Your task to perform on an android device: check the backup settings in the google photos Image 0: 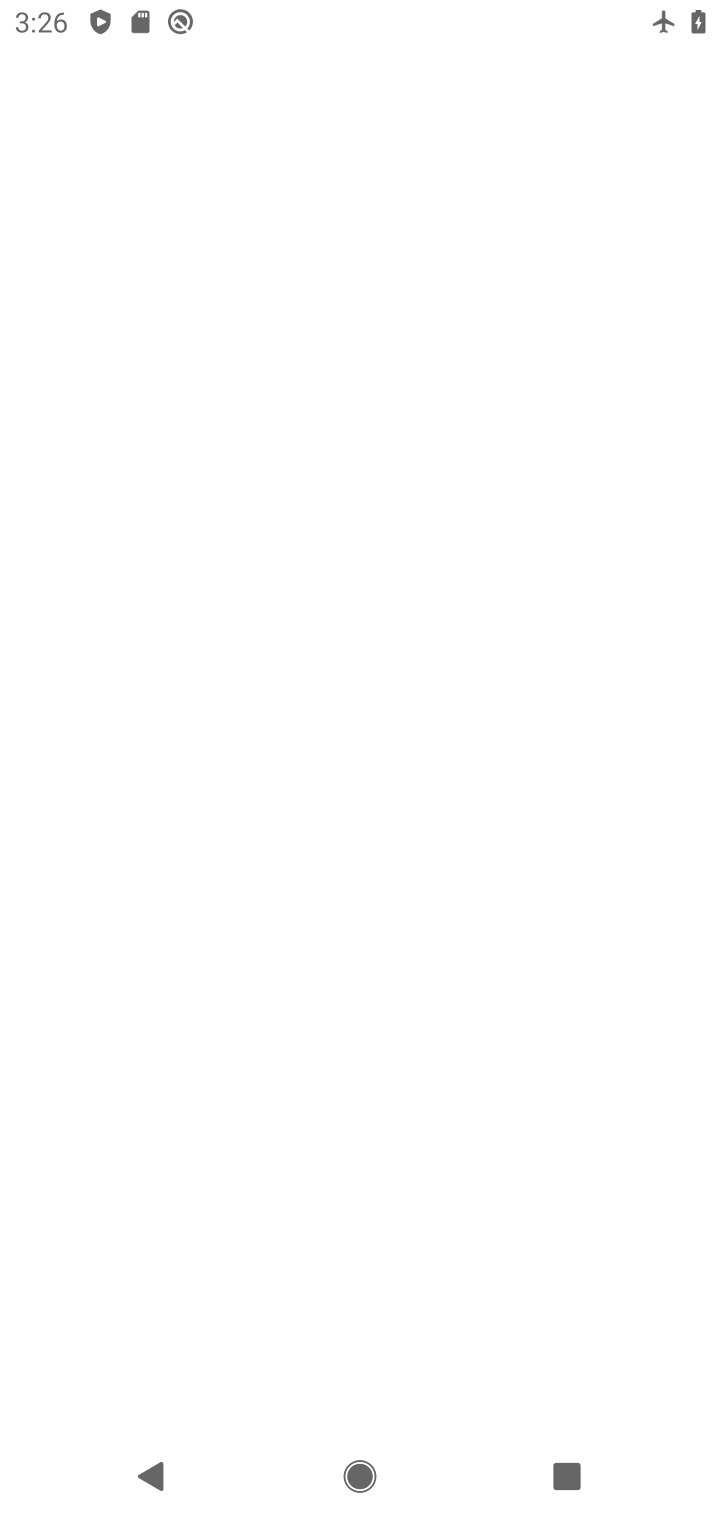
Step 0: press home button
Your task to perform on an android device: check the backup settings in the google photos Image 1: 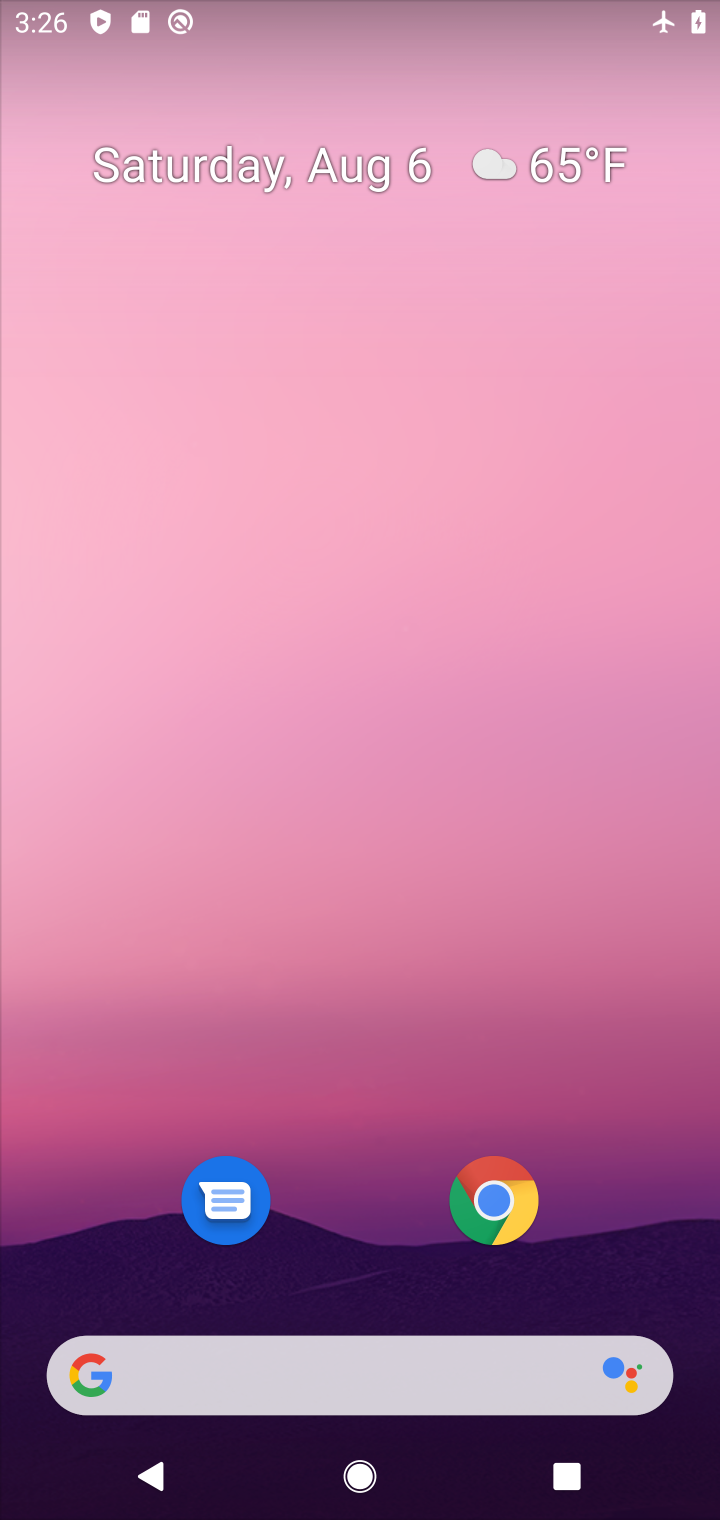
Step 1: drag from (466, 1222) to (524, 317)
Your task to perform on an android device: check the backup settings in the google photos Image 2: 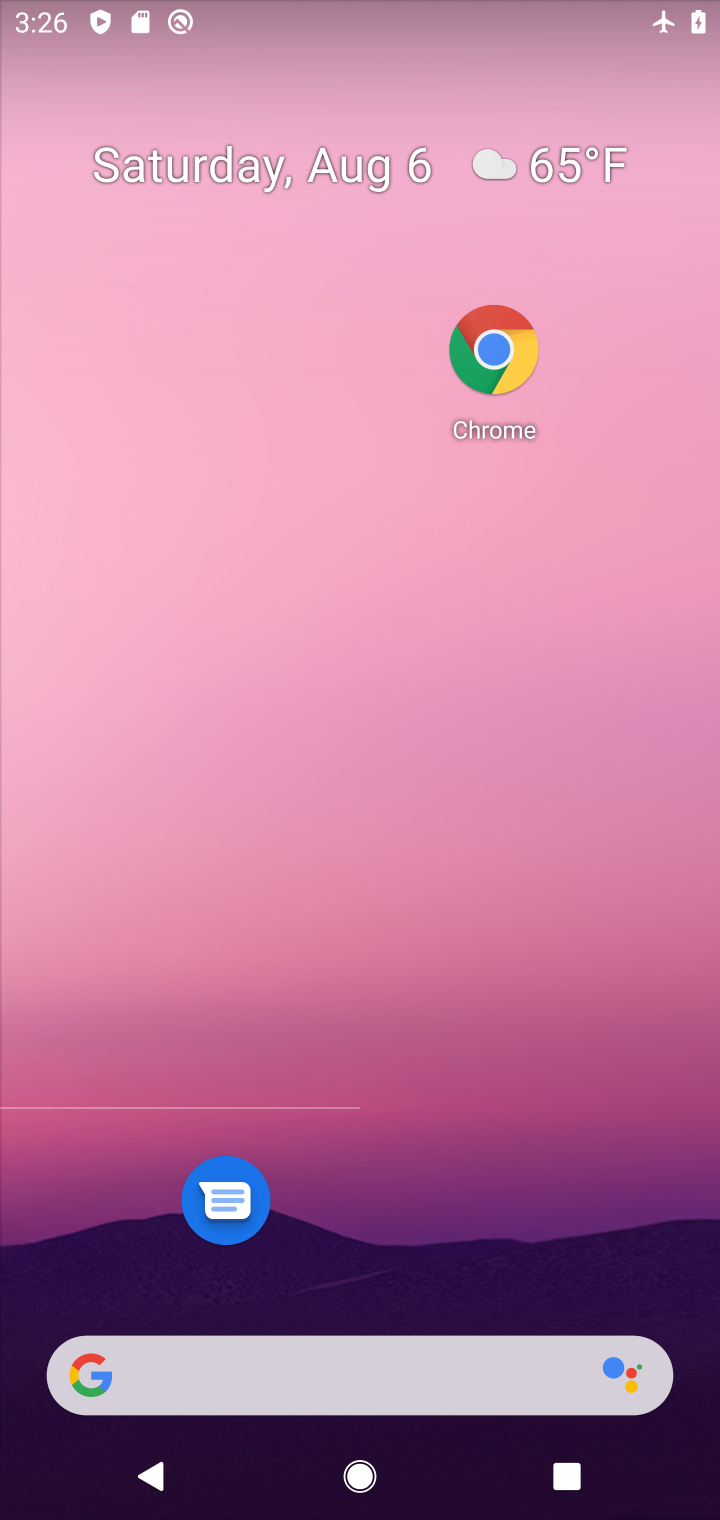
Step 2: drag from (330, 1324) to (324, 193)
Your task to perform on an android device: check the backup settings in the google photos Image 3: 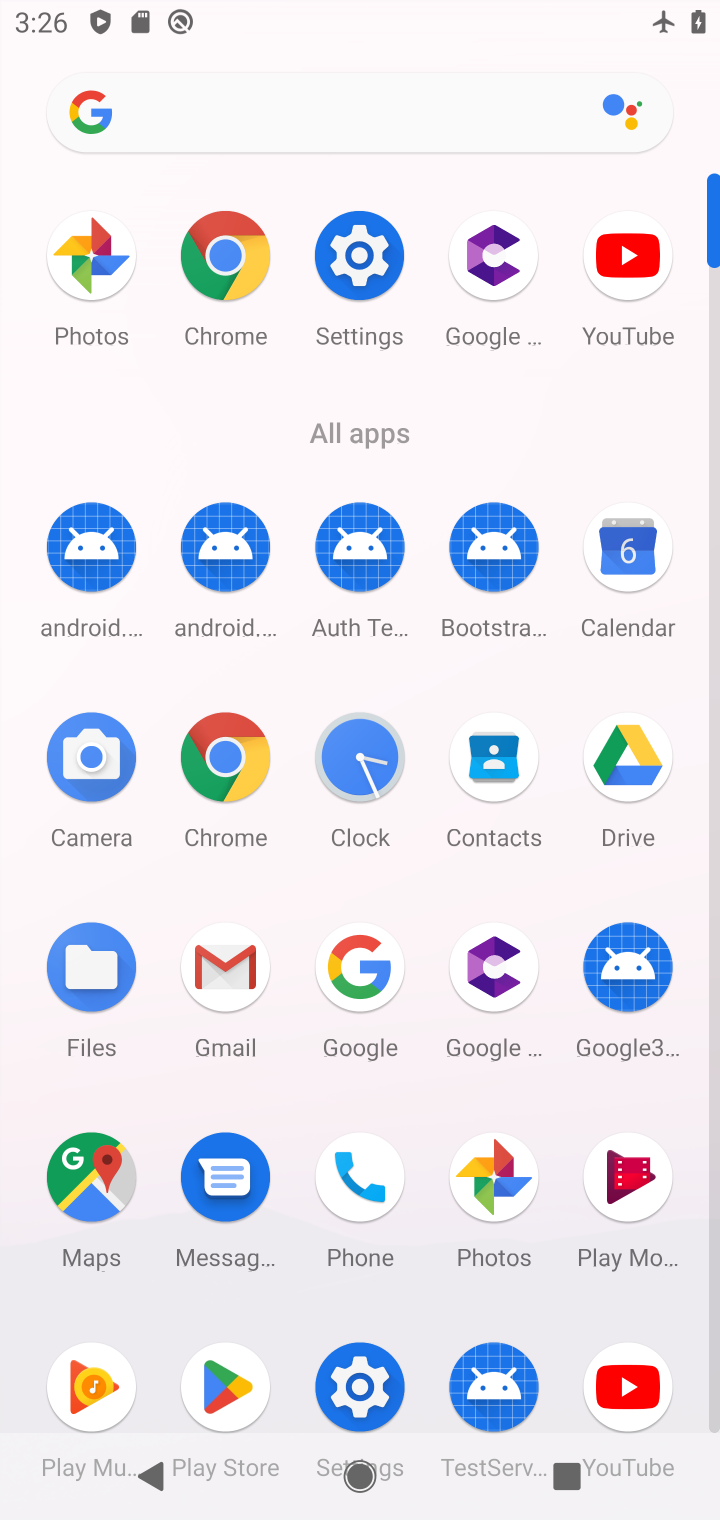
Step 3: click (484, 1167)
Your task to perform on an android device: check the backup settings in the google photos Image 4: 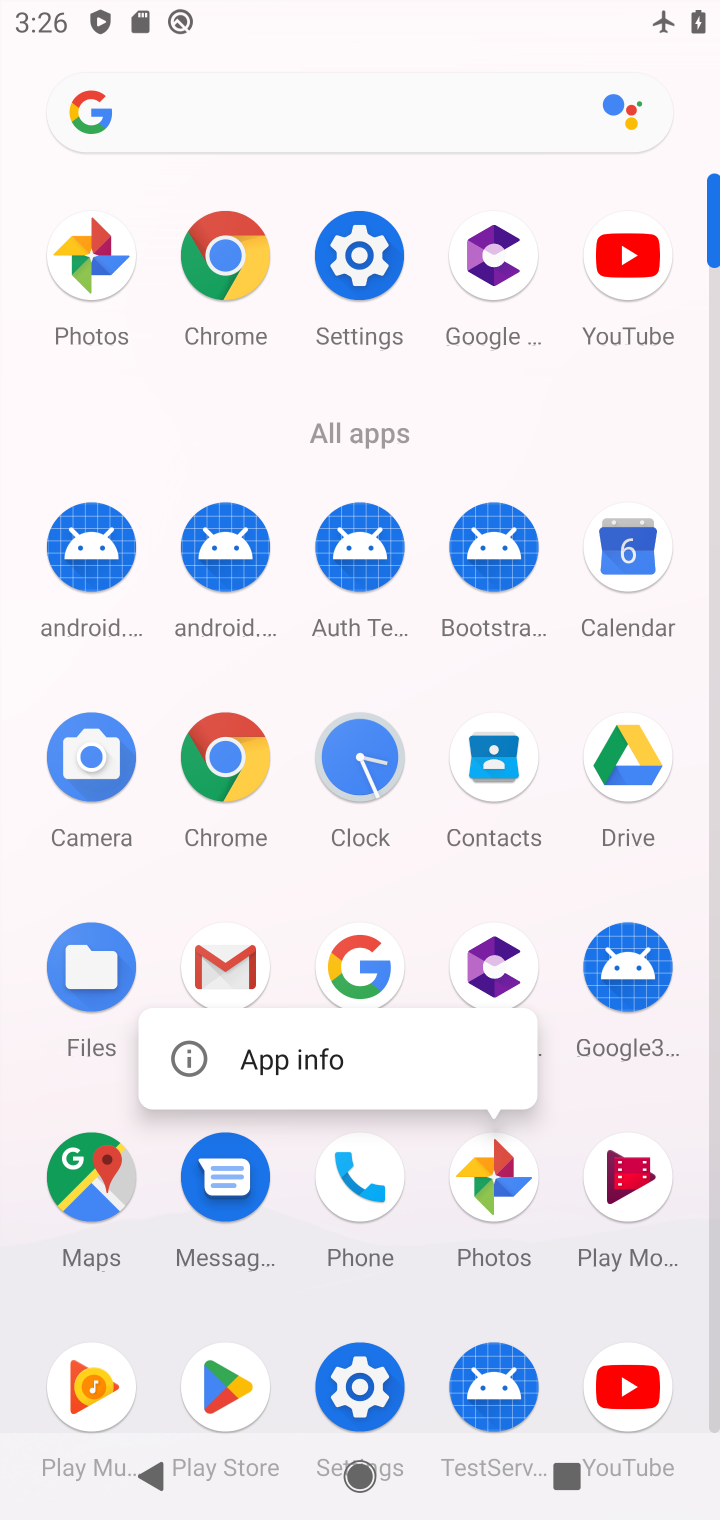
Step 4: click (484, 1167)
Your task to perform on an android device: check the backup settings in the google photos Image 5: 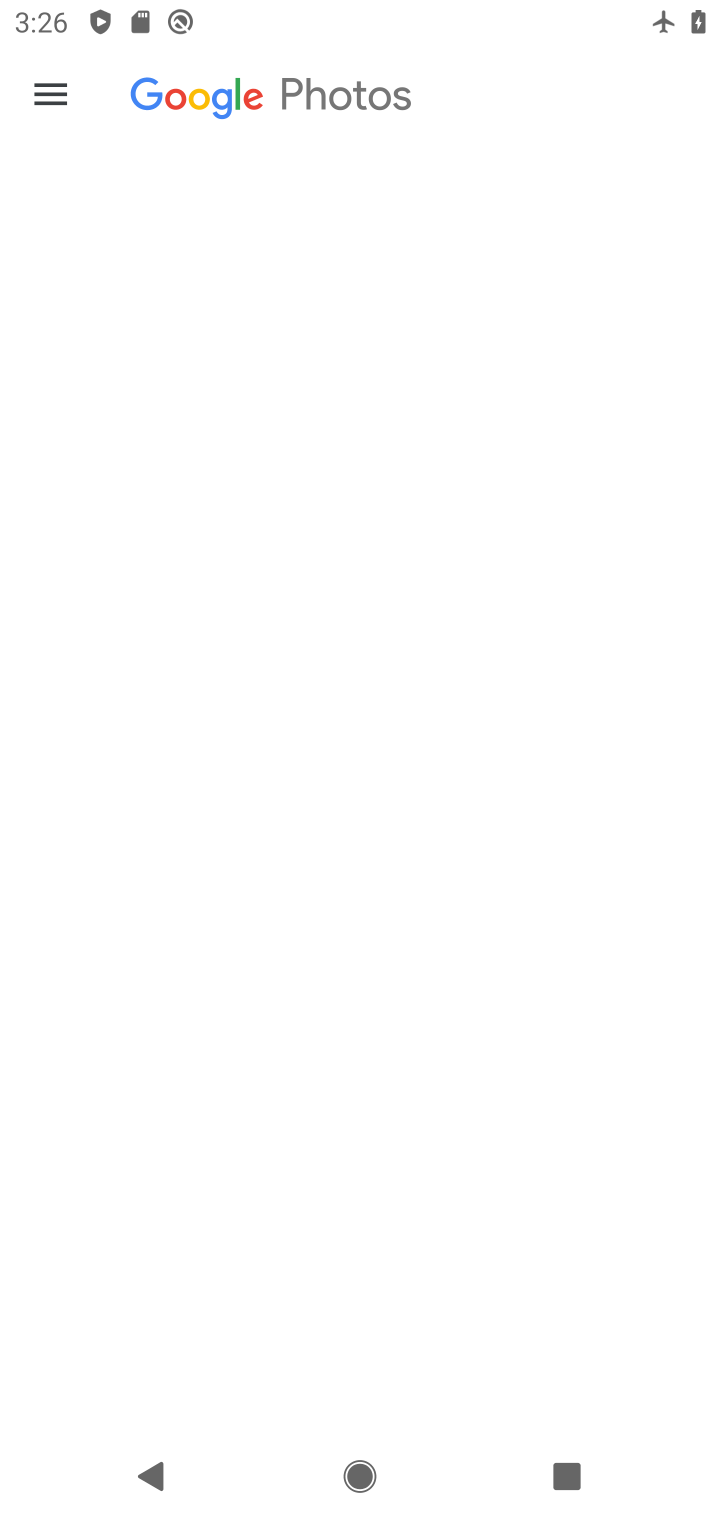
Step 5: click (56, 112)
Your task to perform on an android device: check the backup settings in the google photos Image 6: 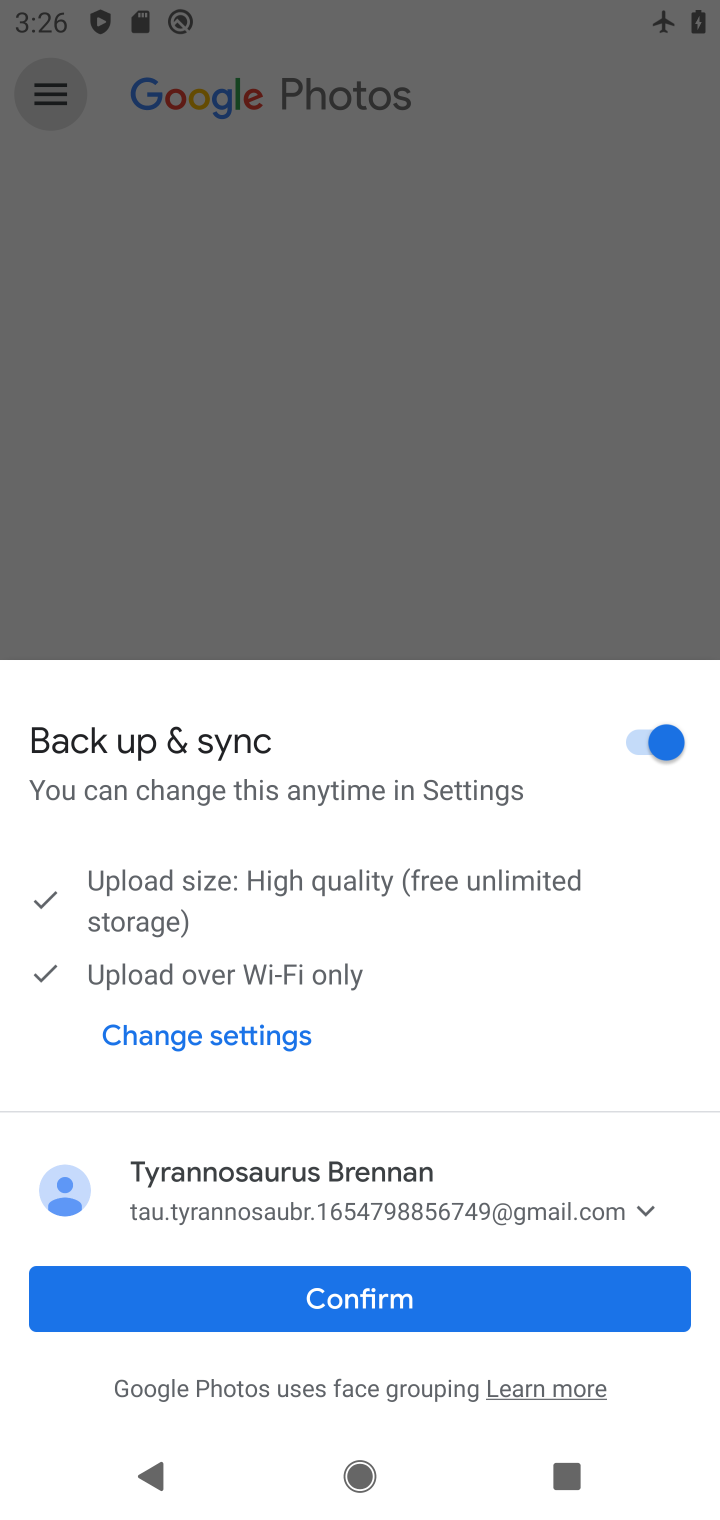
Step 6: click (375, 1287)
Your task to perform on an android device: check the backup settings in the google photos Image 7: 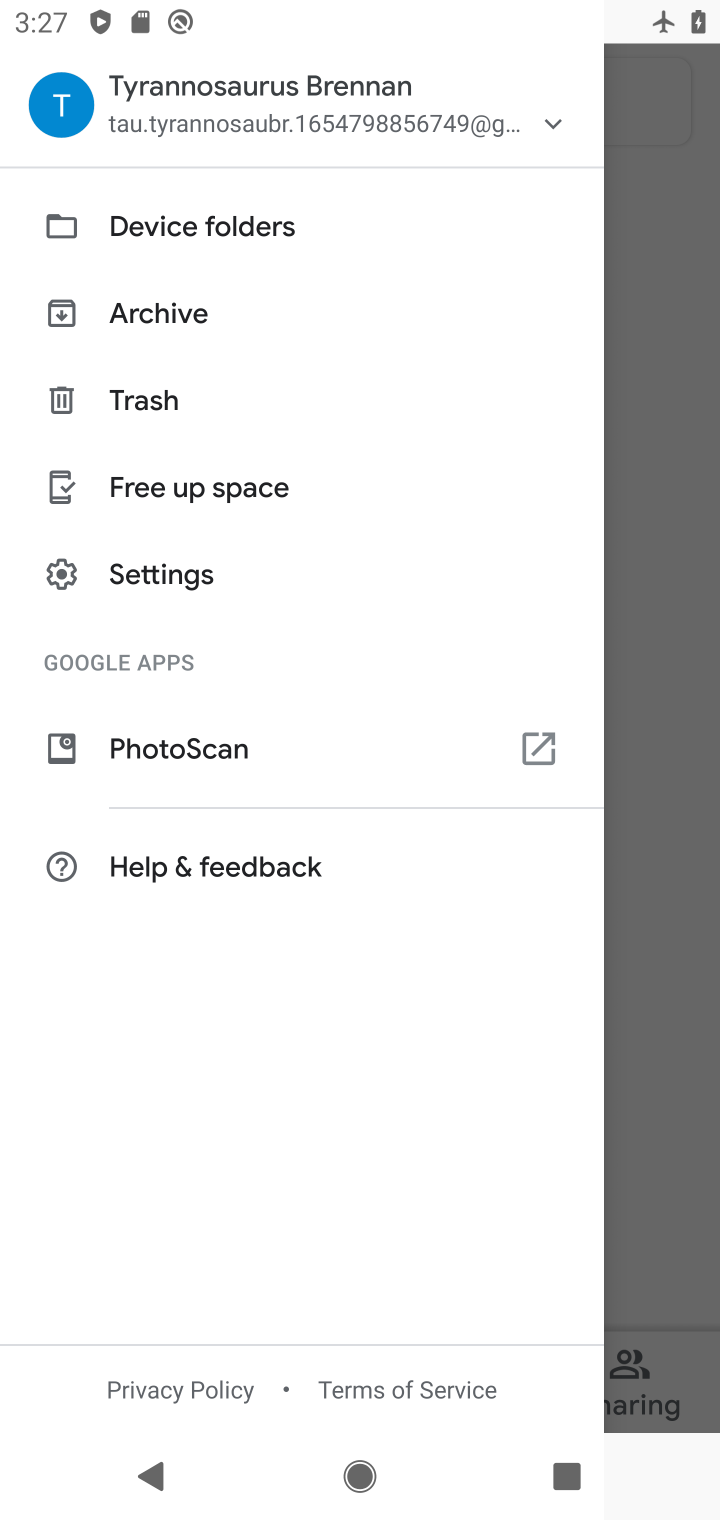
Step 7: click (213, 585)
Your task to perform on an android device: check the backup settings in the google photos Image 8: 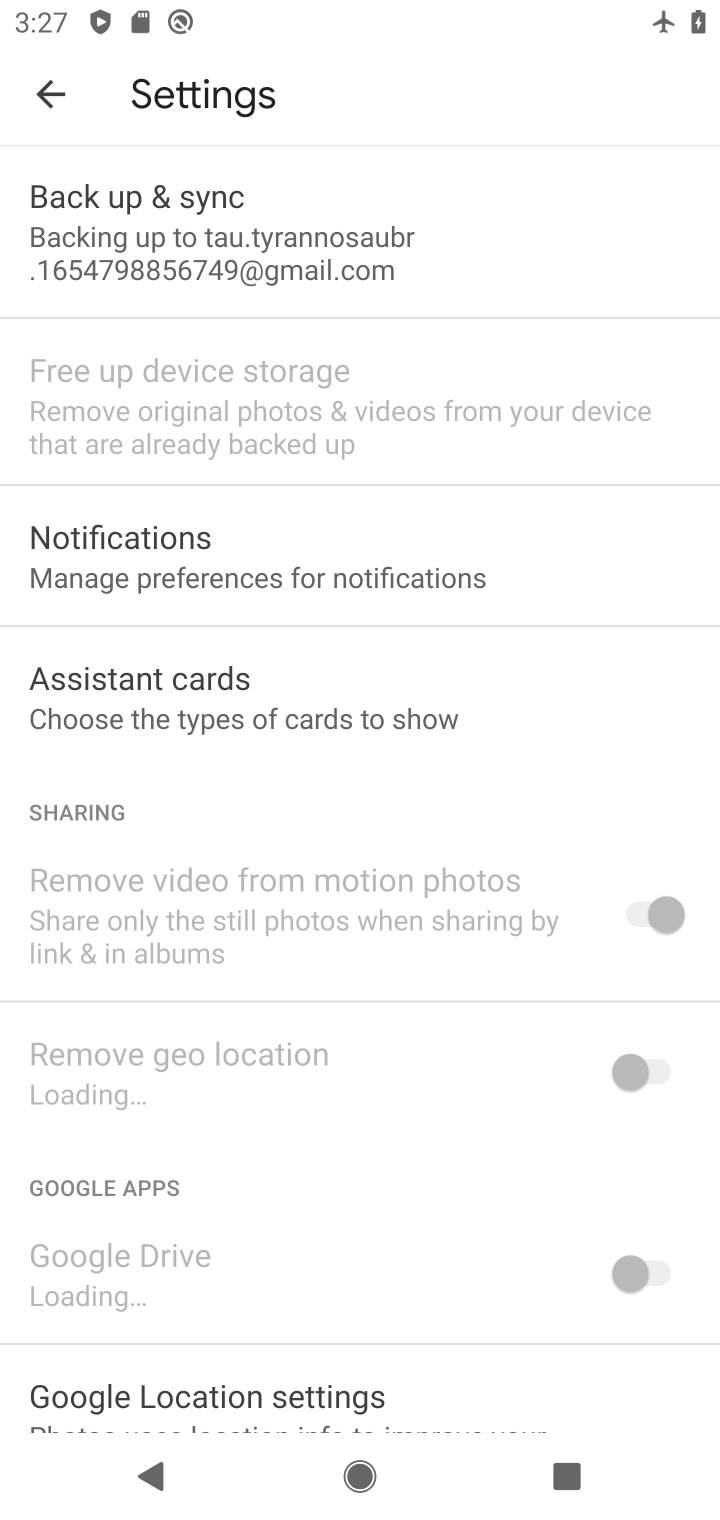
Step 8: press home button
Your task to perform on an android device: check the backup settings in the google photos Image 9: 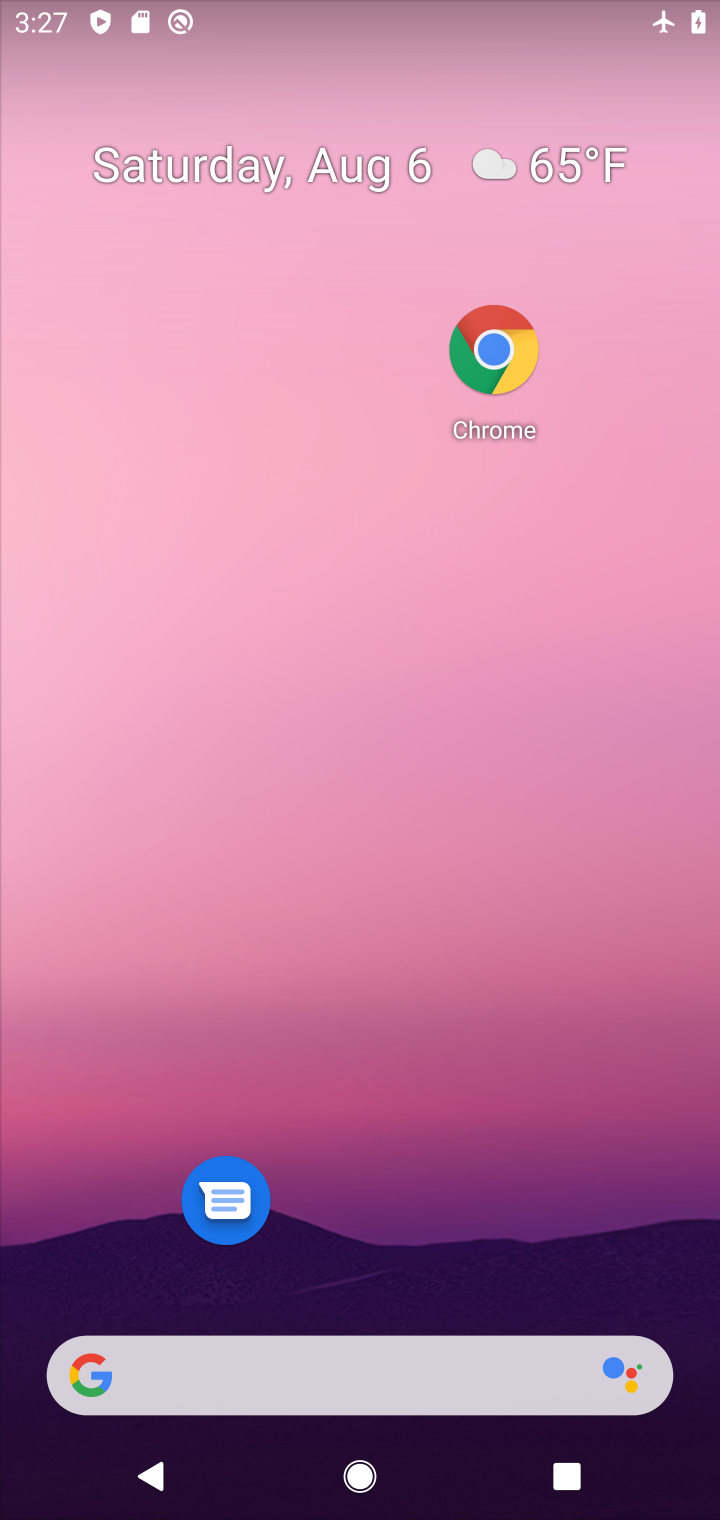
Step 9: drag from (360, 941) to (362, 414)
Your task to perform on an android device: check the backup settings in the google photos Image 10: 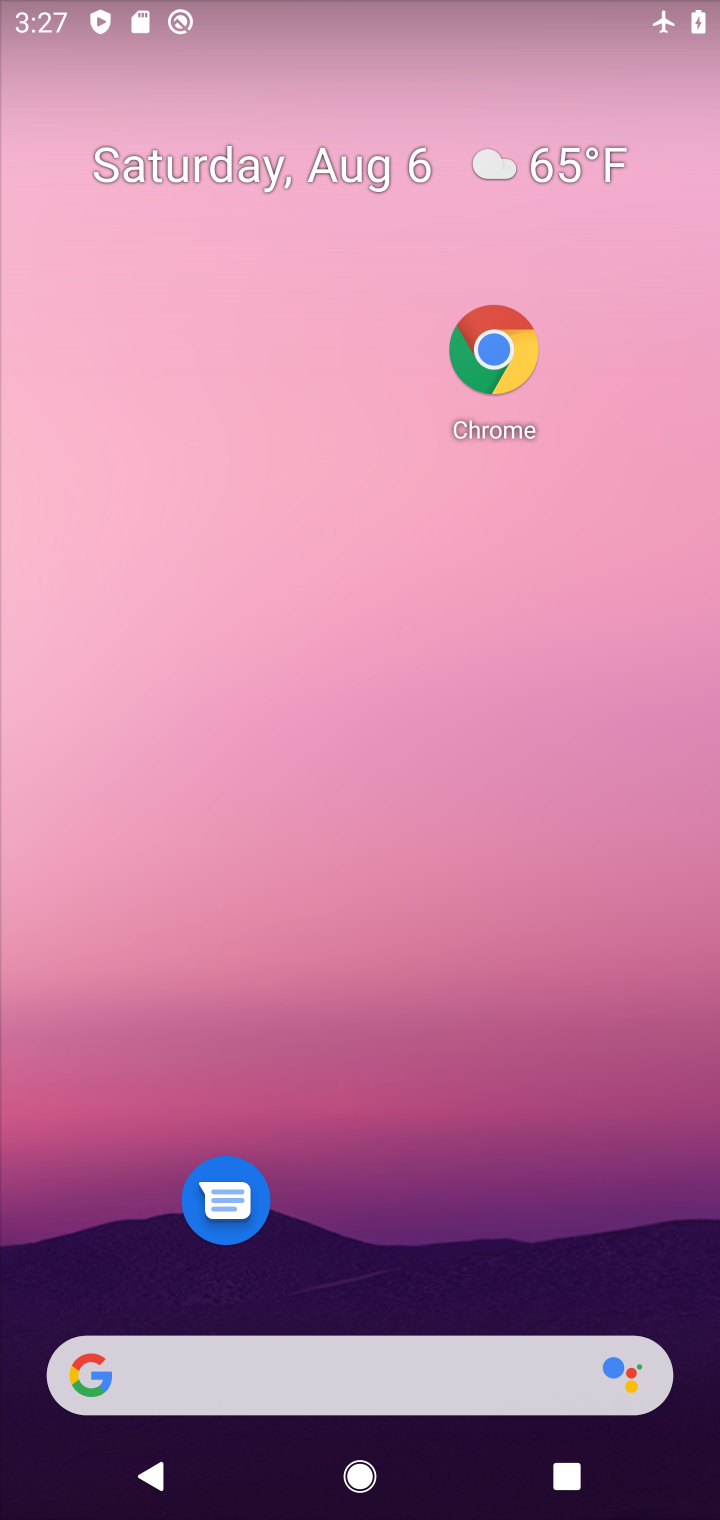
Step 10: drag from (332, 1340) to (279, 322)
Your task to perform on an android device: check the backup settings in the google photos Image 11: 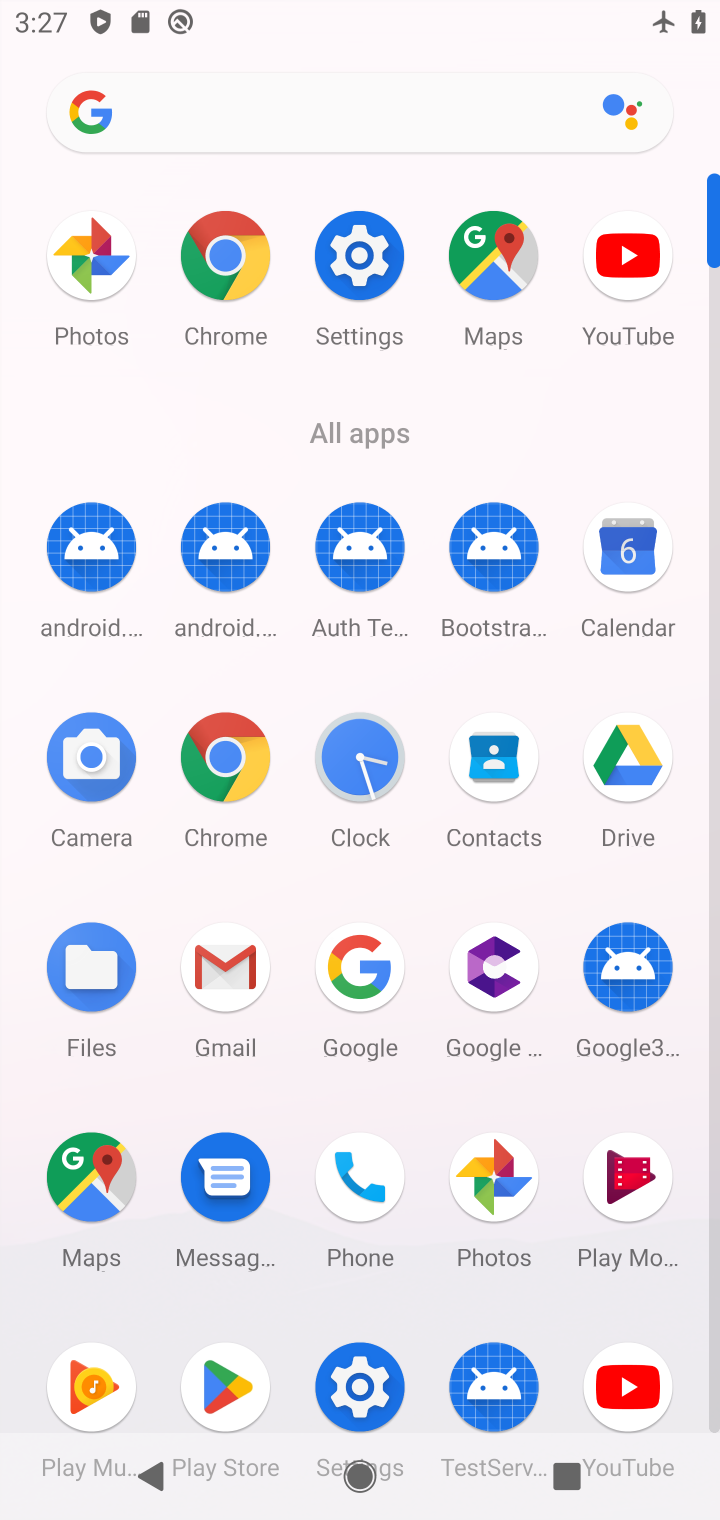
Step 11: click (490, 1168)
Your task to perform on an android device: check the backup settings in the google photos Image 12: 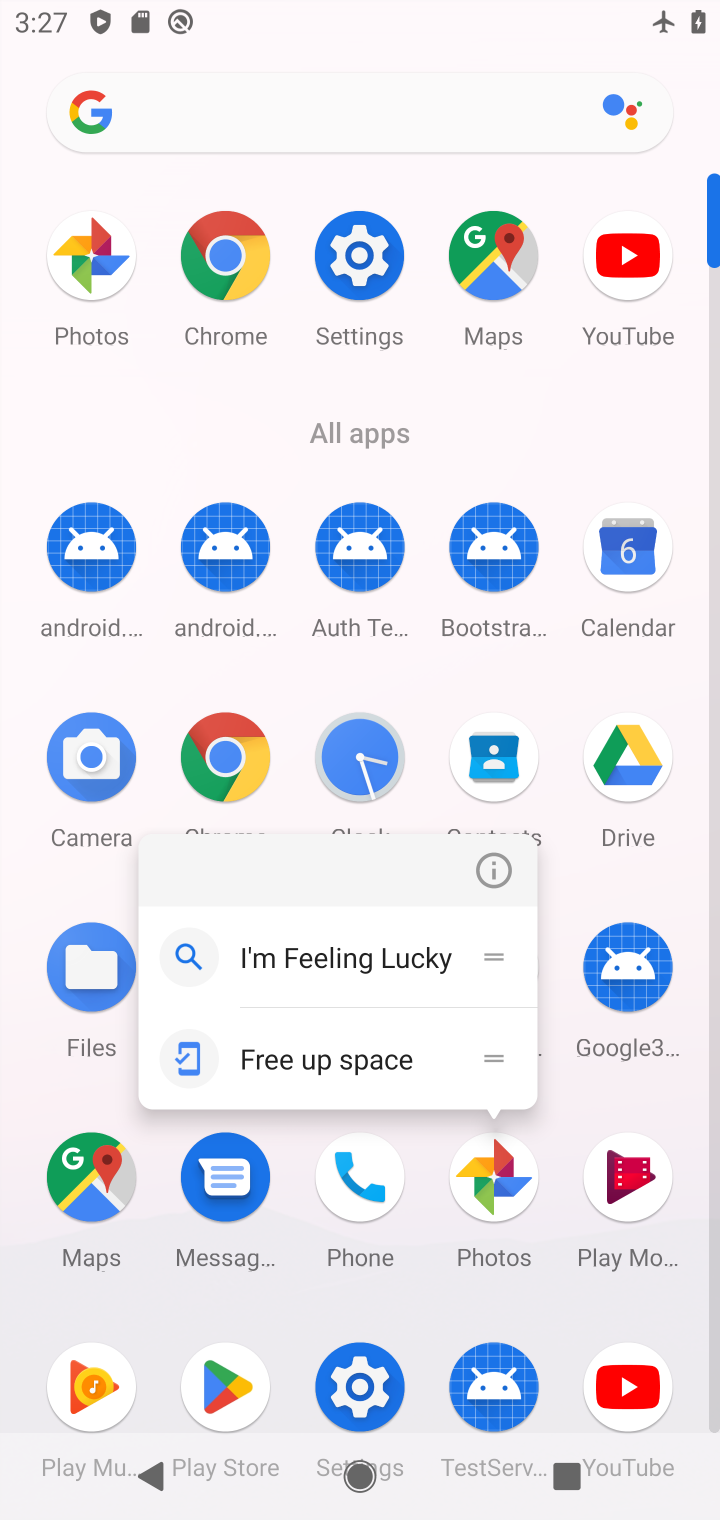
Step 12: click (490, 1168)
Your task to perform on an android device: check the backup settings in the google photos Image 13: 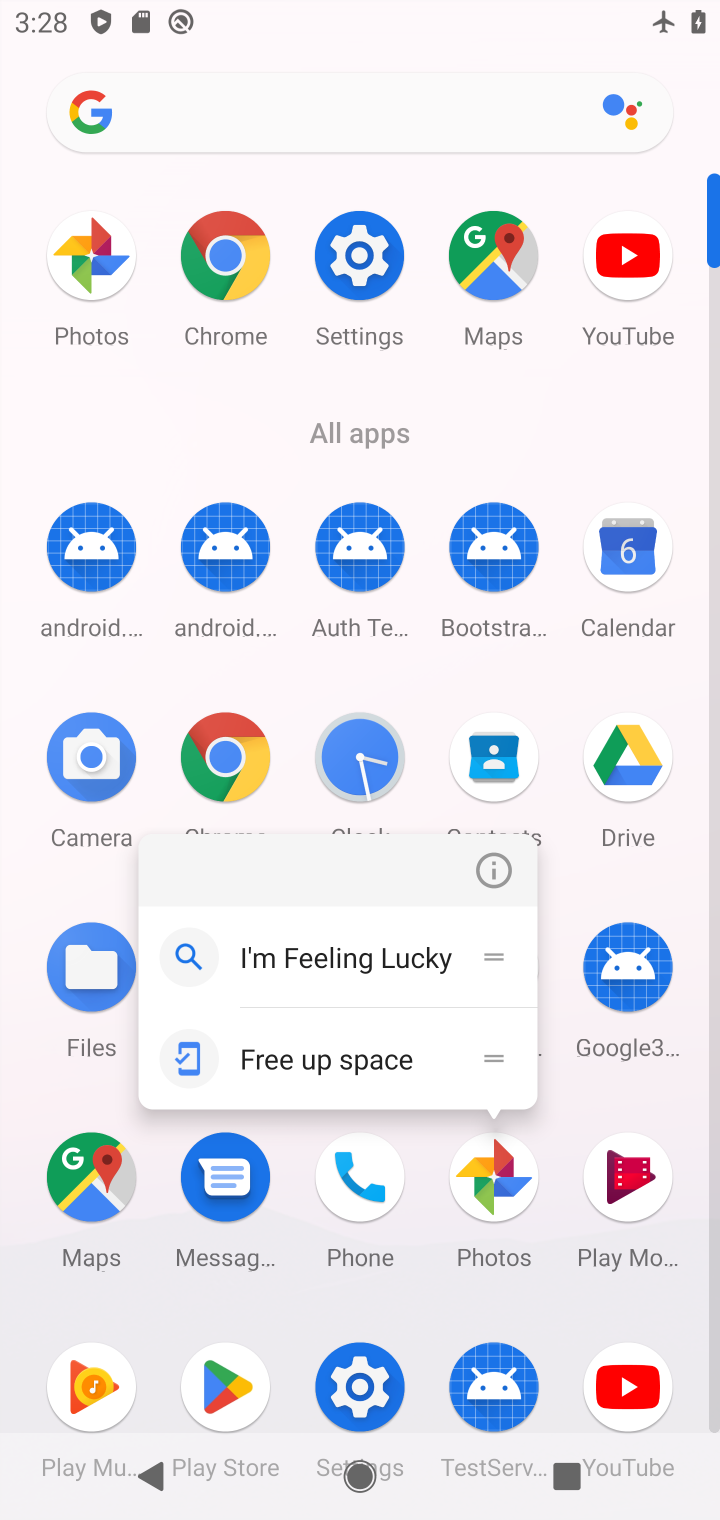
Step 13: click (488, 1166)
Your task to perform on an android device: check the backup settings in the google photos Image 14: 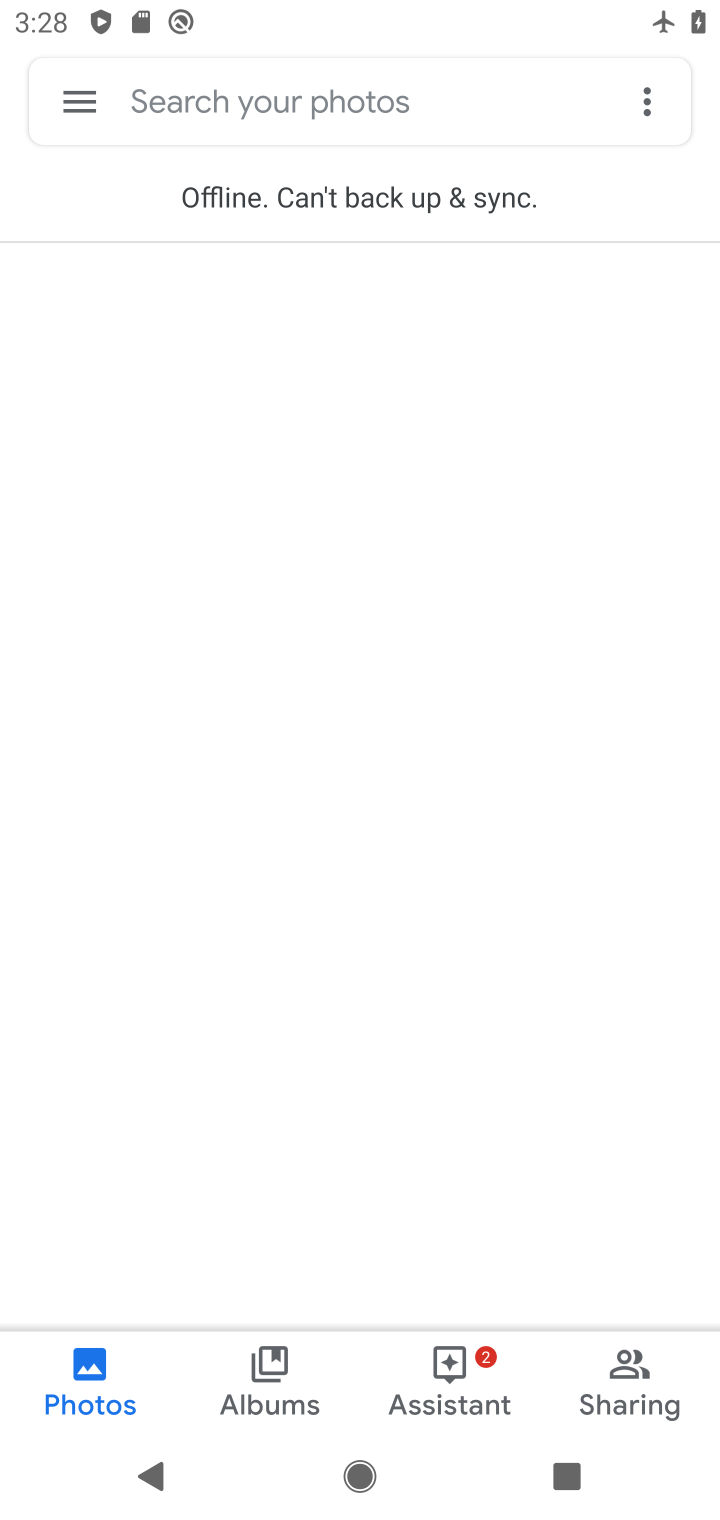
Step 14: click (71, 101)
Your task to perform on an android device: check the backup settings in the google photos Image 15: 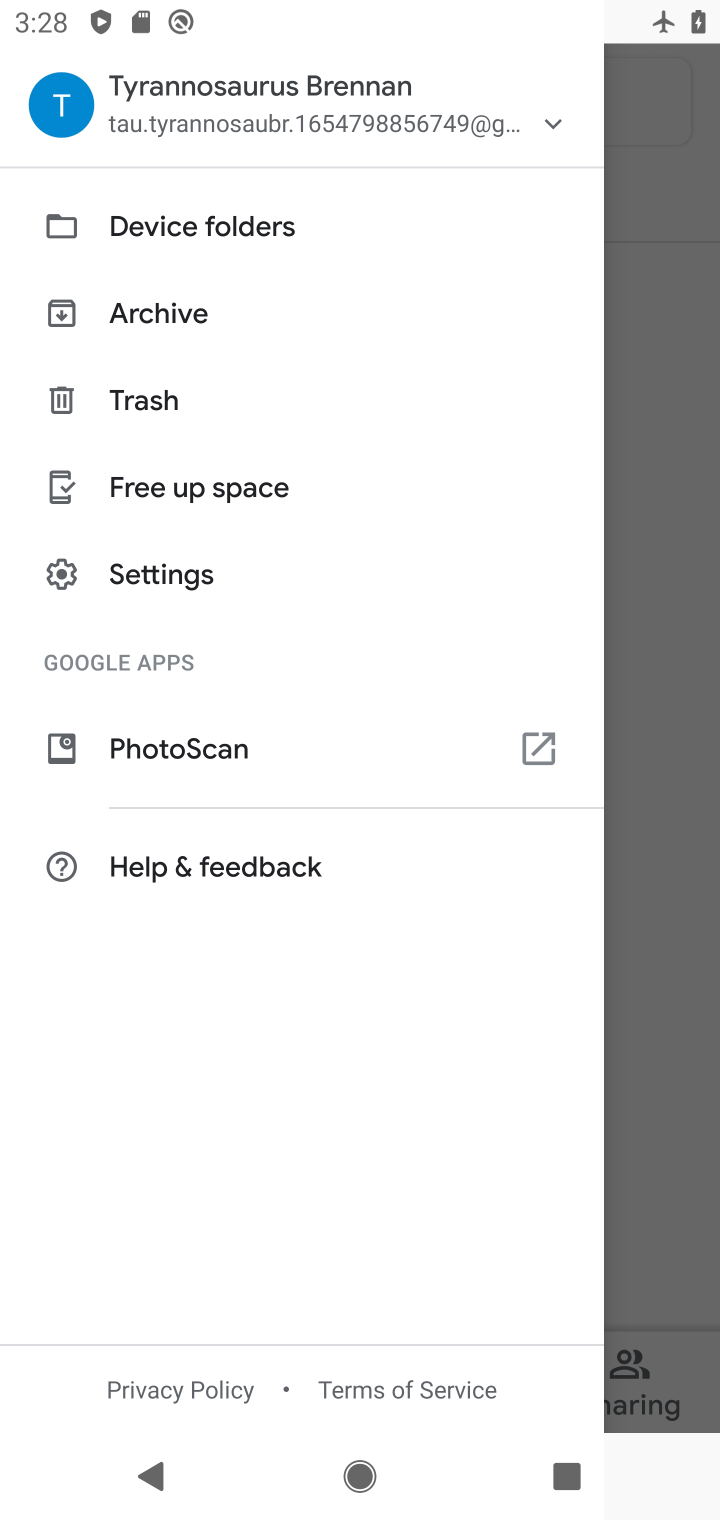
Step 15: click (106, 563)
Your task to perform on an android device: check the backup settings in the google photos Image 16: 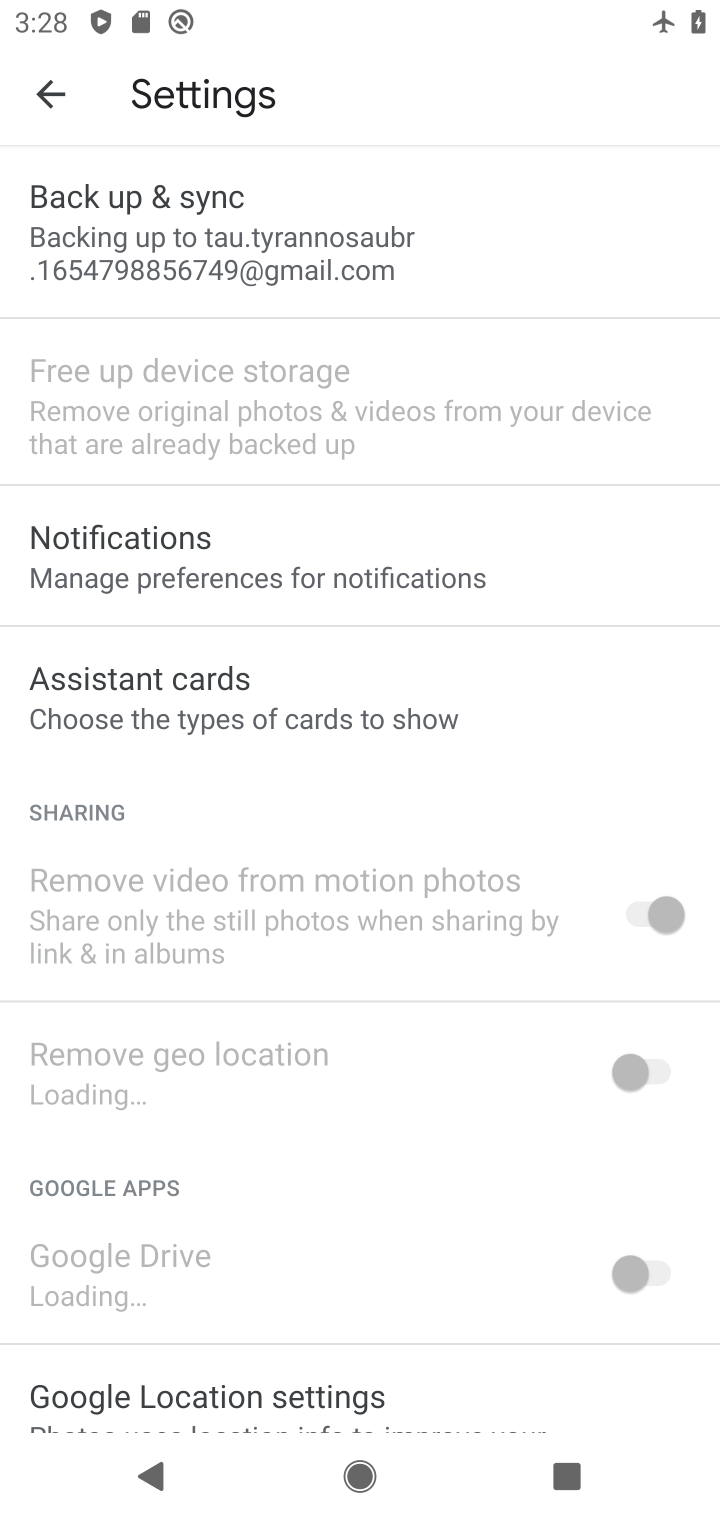
Step 16: click (165, 234)
Your task to perform on an android device: check the backup settings in the google photos Image 17: 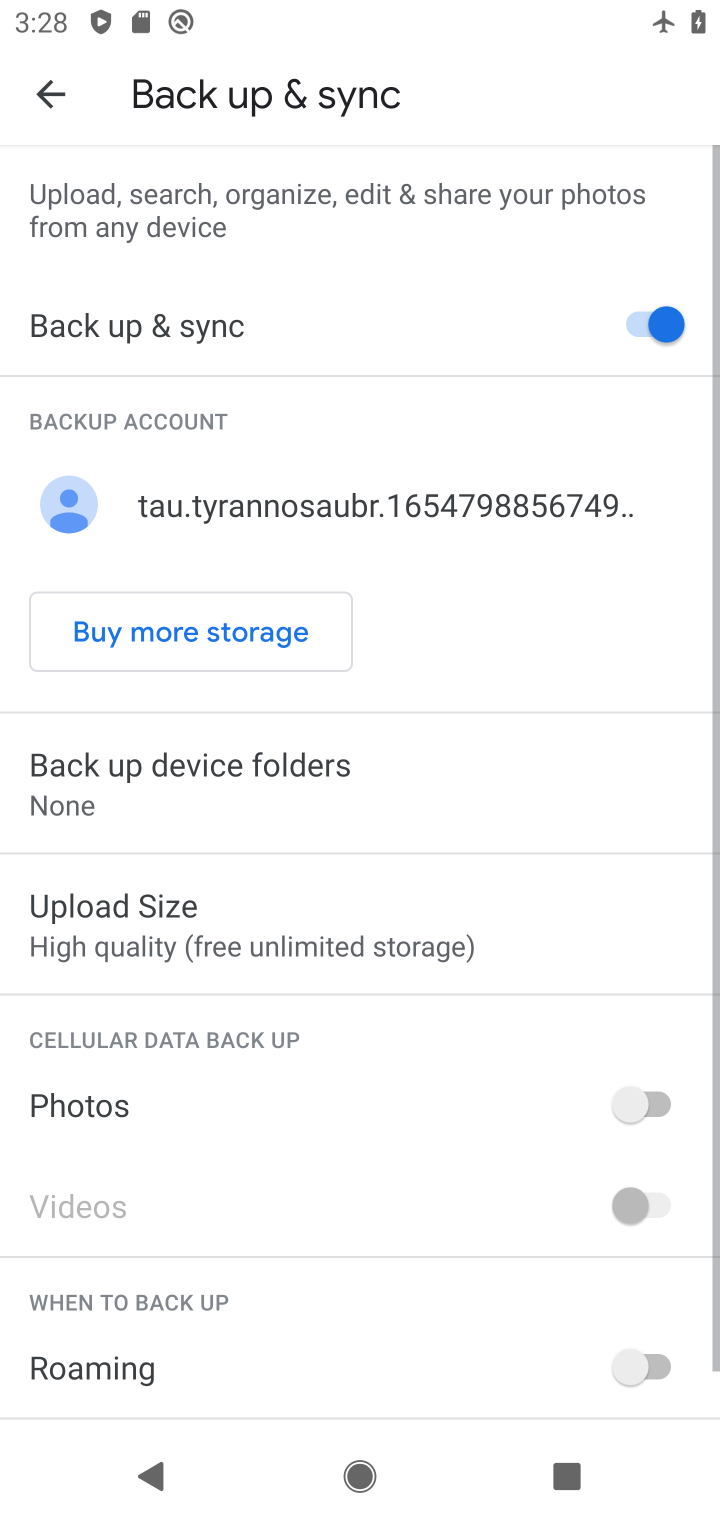
Step 17: task complete